Your task to perform on an android device: refresh tabs in the chrome app Image 0: 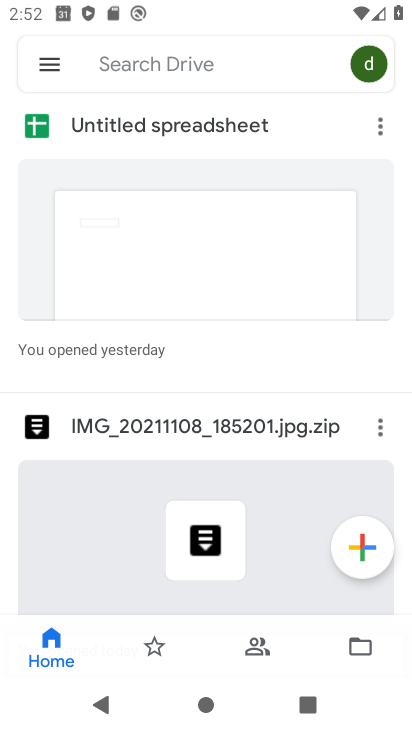
Step 0: press home button
Your task to perform on an android device: refresh tabs in the chrome app Image 1: 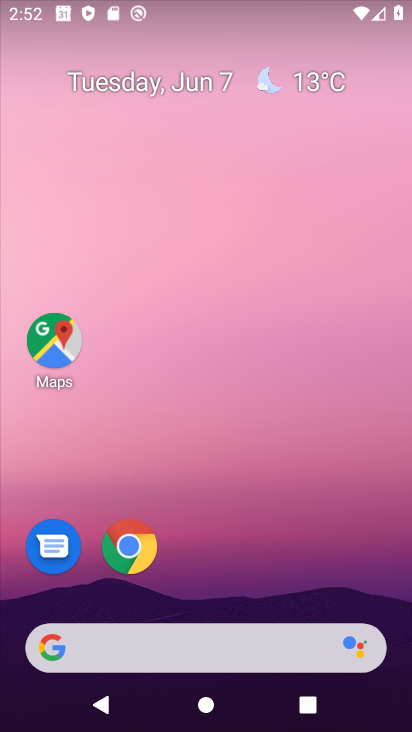
Step 1: drag from (199, 499) to (337, 14)
Your task to perform on an android device: refresh tabs in the chrome app Image 2: 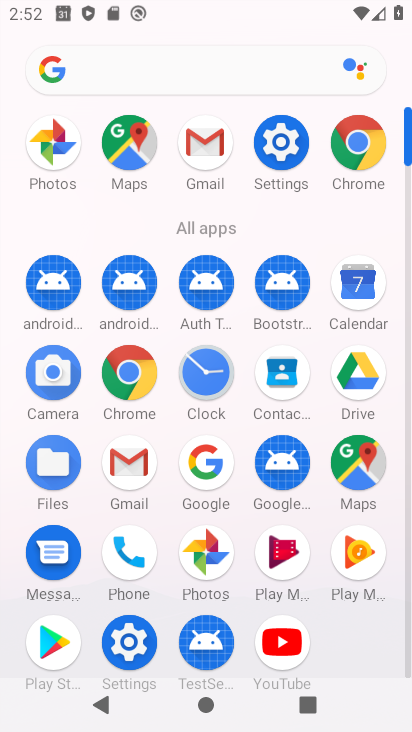
Step 2: click (355, 135)
Your task to perform on an android device: refresh tabs in the chrome app Image 3: 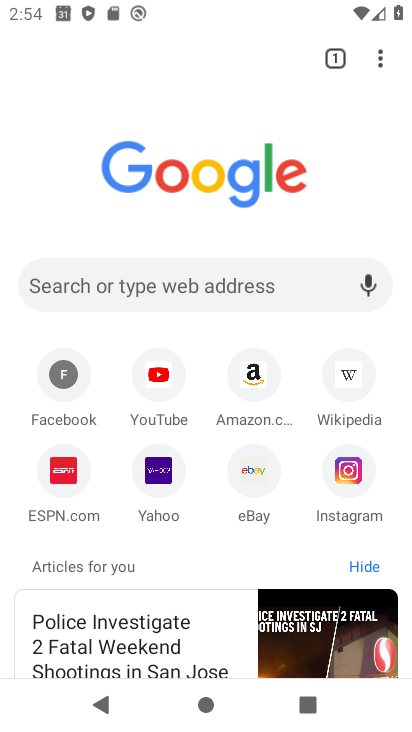
Step 3: click (377, 58)
Your task to perform on an android device: refresh tabs in the chrome app Image 4: 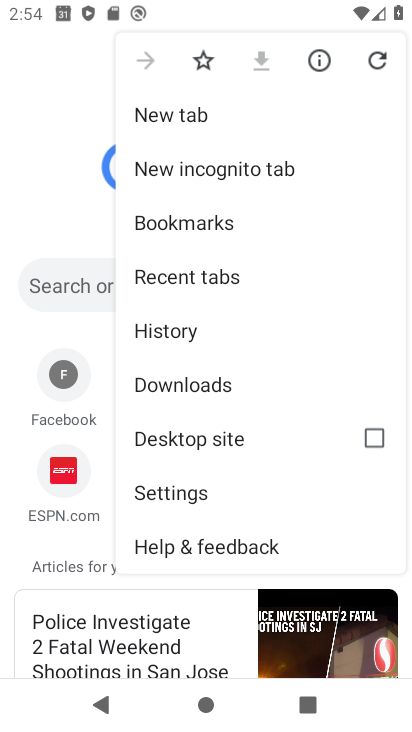
Step 4: click (374, 61)
Your task to perform on an android device: refresh tabs in the chrome app Image 5: 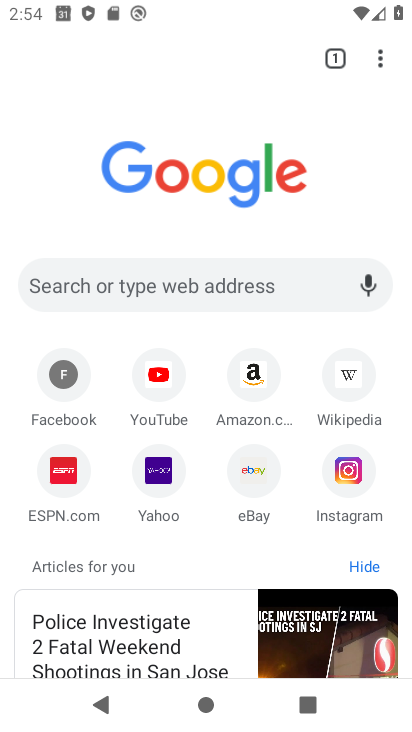
Step 5: task complete